Your task to perform on an android device: Set an alarm for 2pm Image 0: 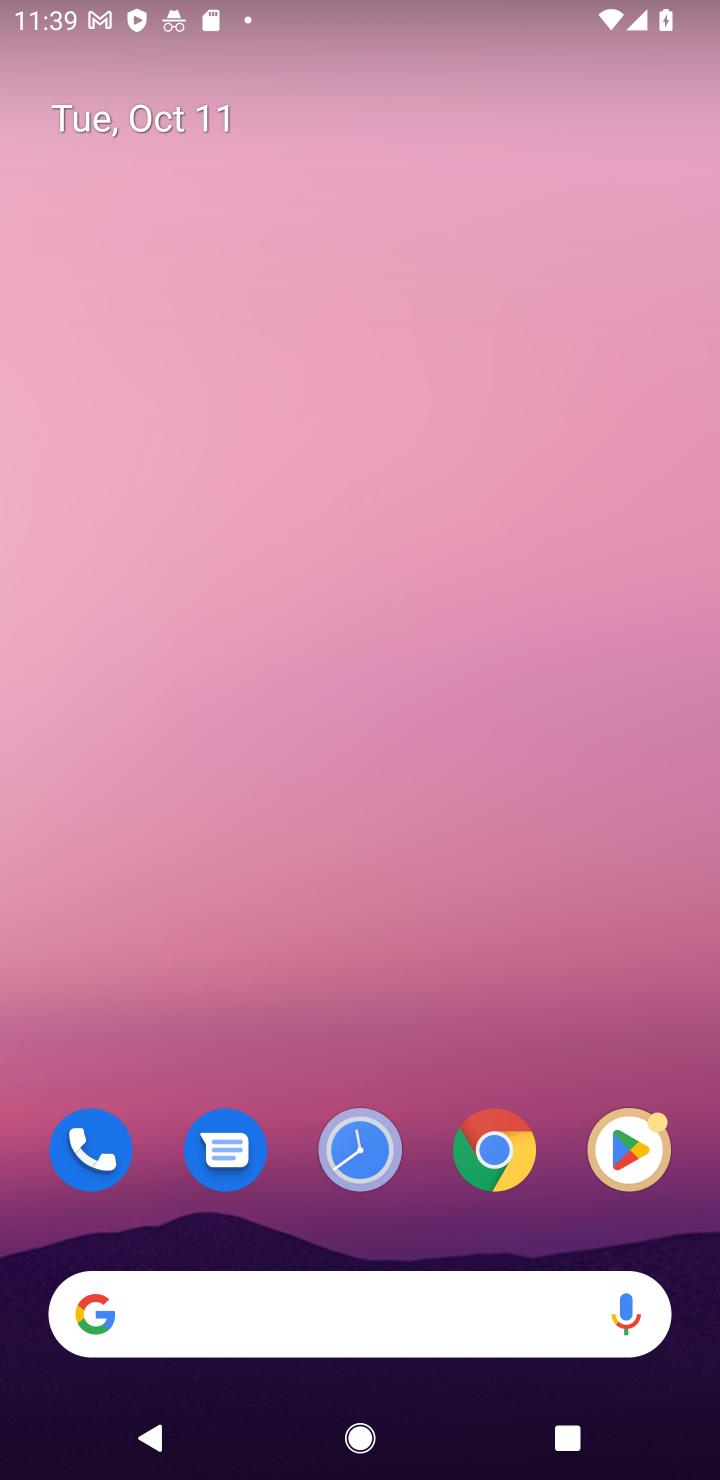
Step 0: press home button
Your task to perform on an android device: Set an alarm for 2pm Image 1: 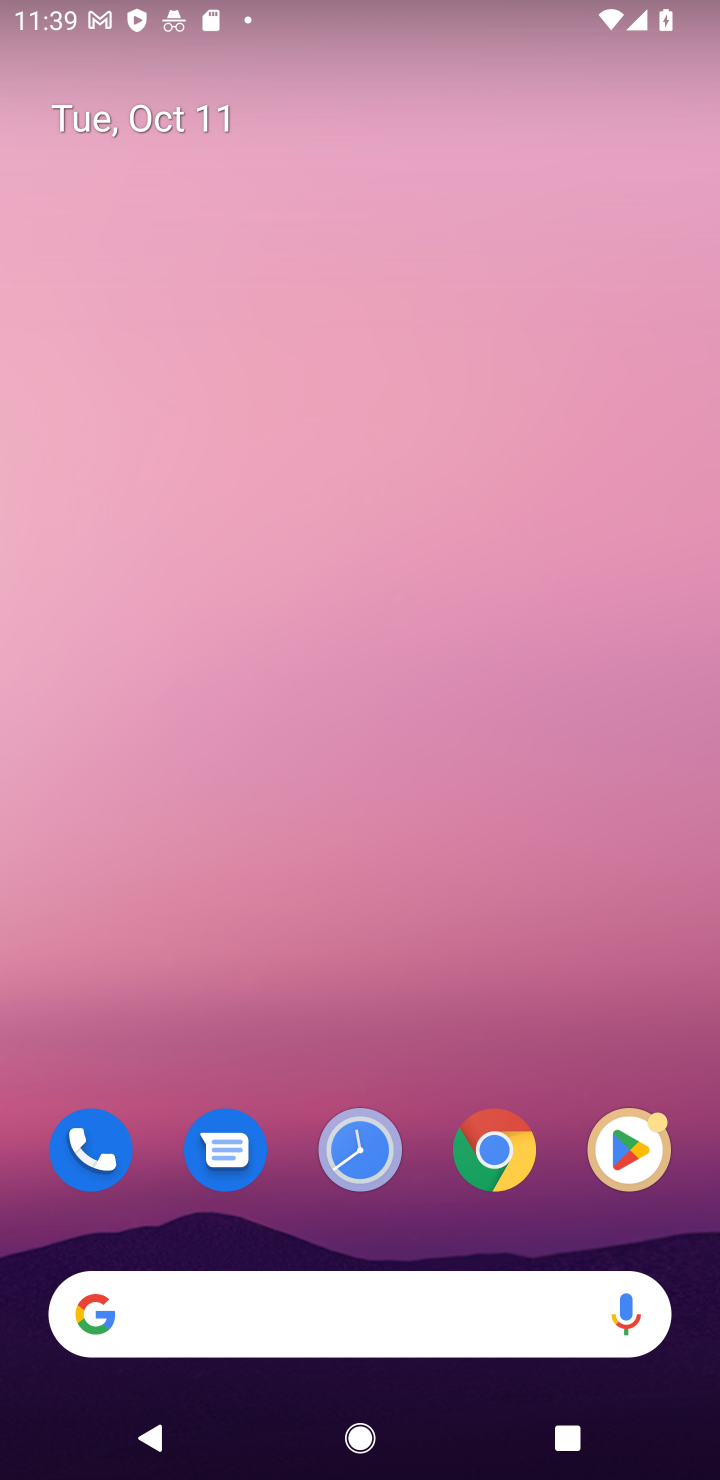
Step 1: click (362, 1138)
Your task to perform on an android device: Set an alarm for 2pm Image 2: 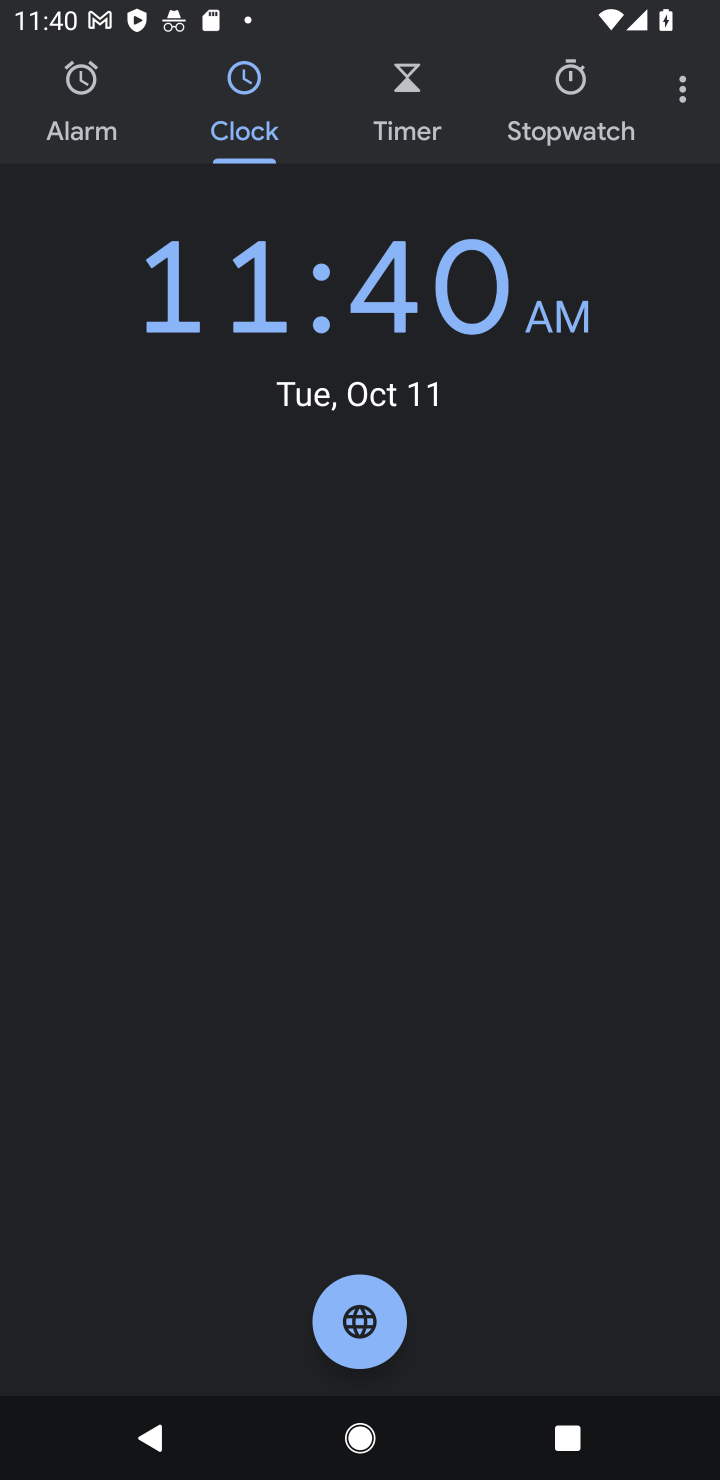
Step 2: click (86, 90)
Your task to perform on an android device: Set an alarm for 2pm Image 3: 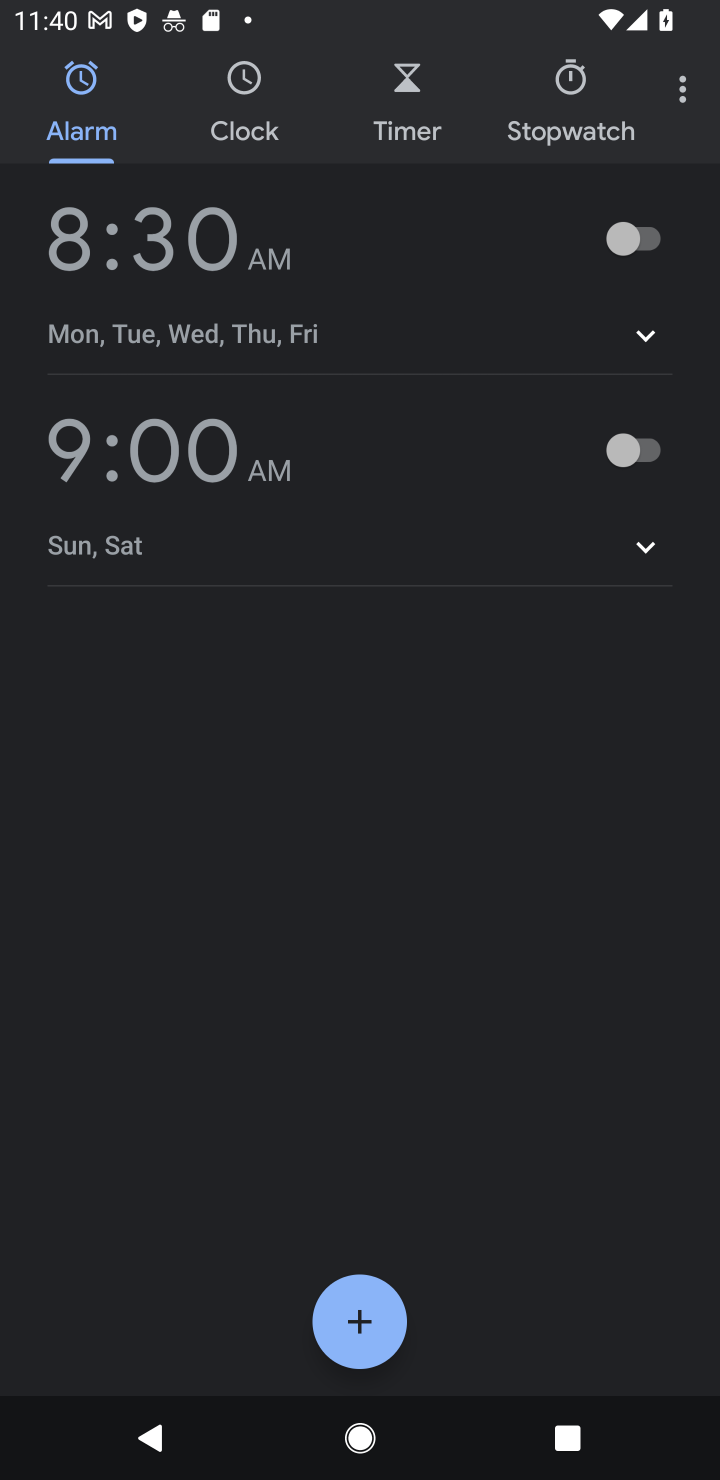
Step 3: click (349, 1323)
Your task to perform on an android device: Set an alarm for 2pm Image 4: 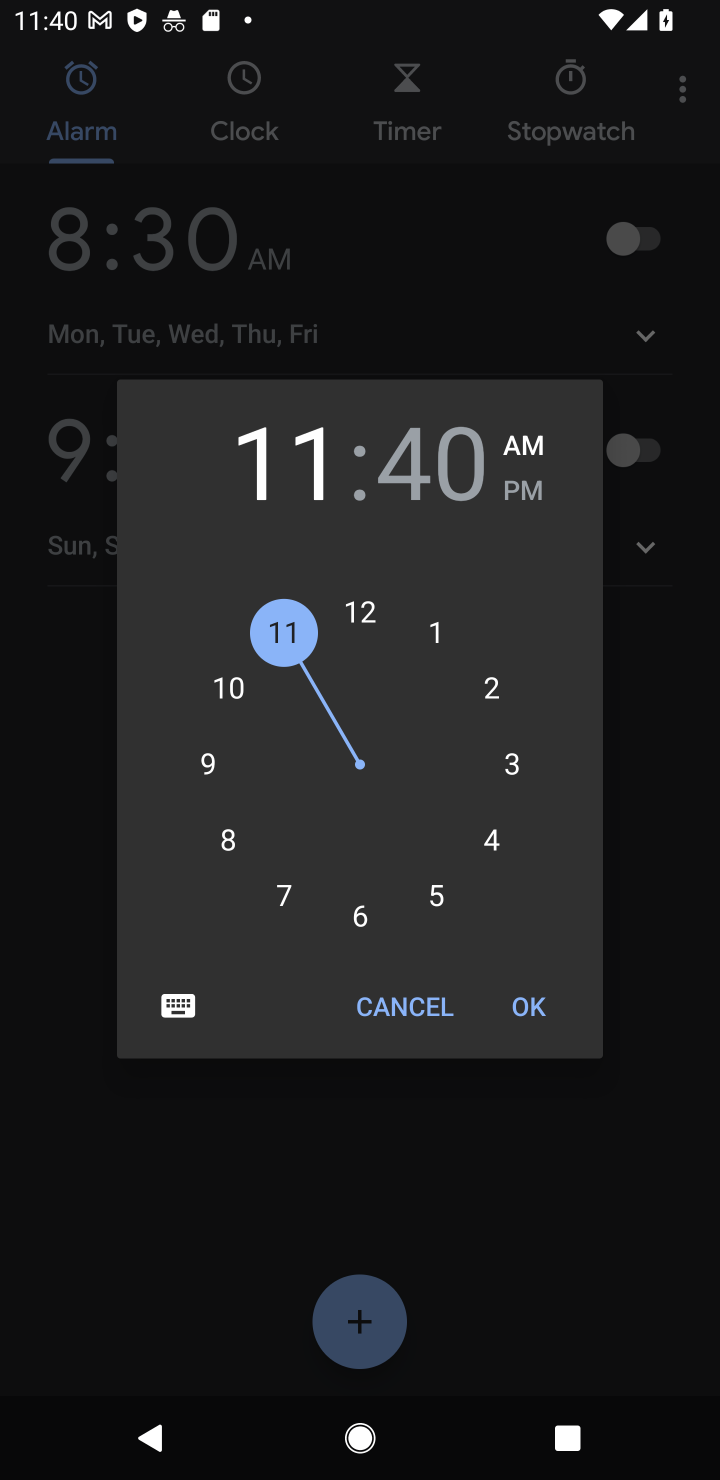
Step 4: click (485, 688)
Your task to perform on an android device: Set an alarm for 2pm Image 5: 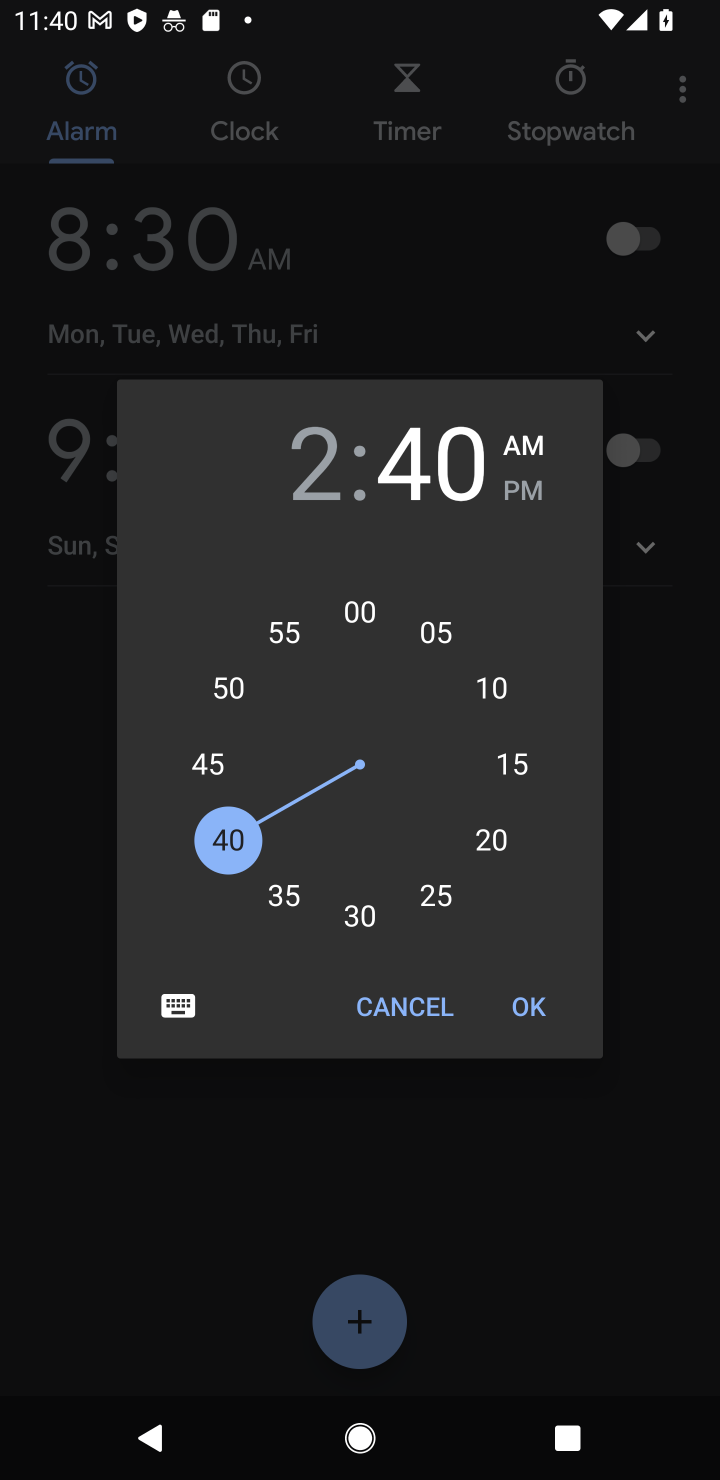
Step 5: click (348, 609)
Your task to perform on an android device: Set an alarm for 2pm Image 6: 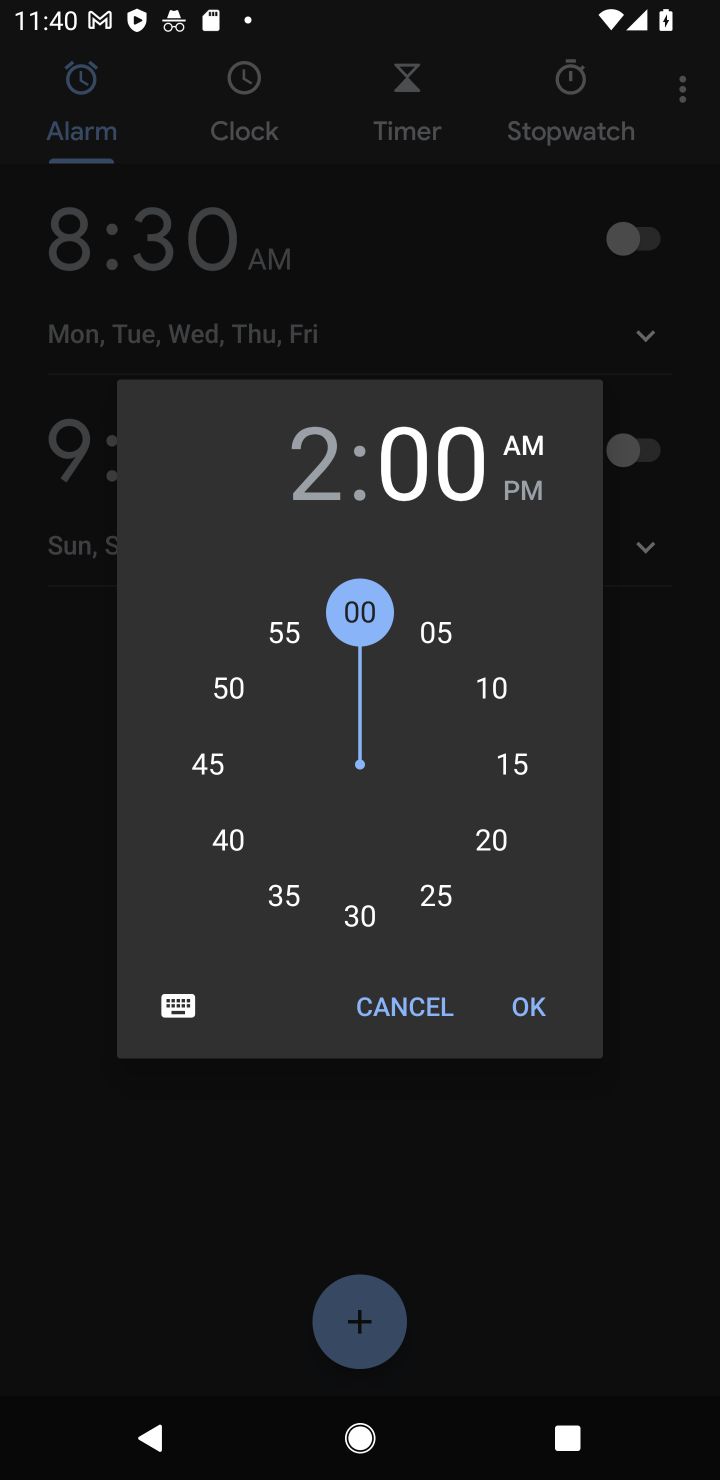
Step 6: click (518, 494)
Your task to perform on an android device: Set an alarm for 2pm Image 7: 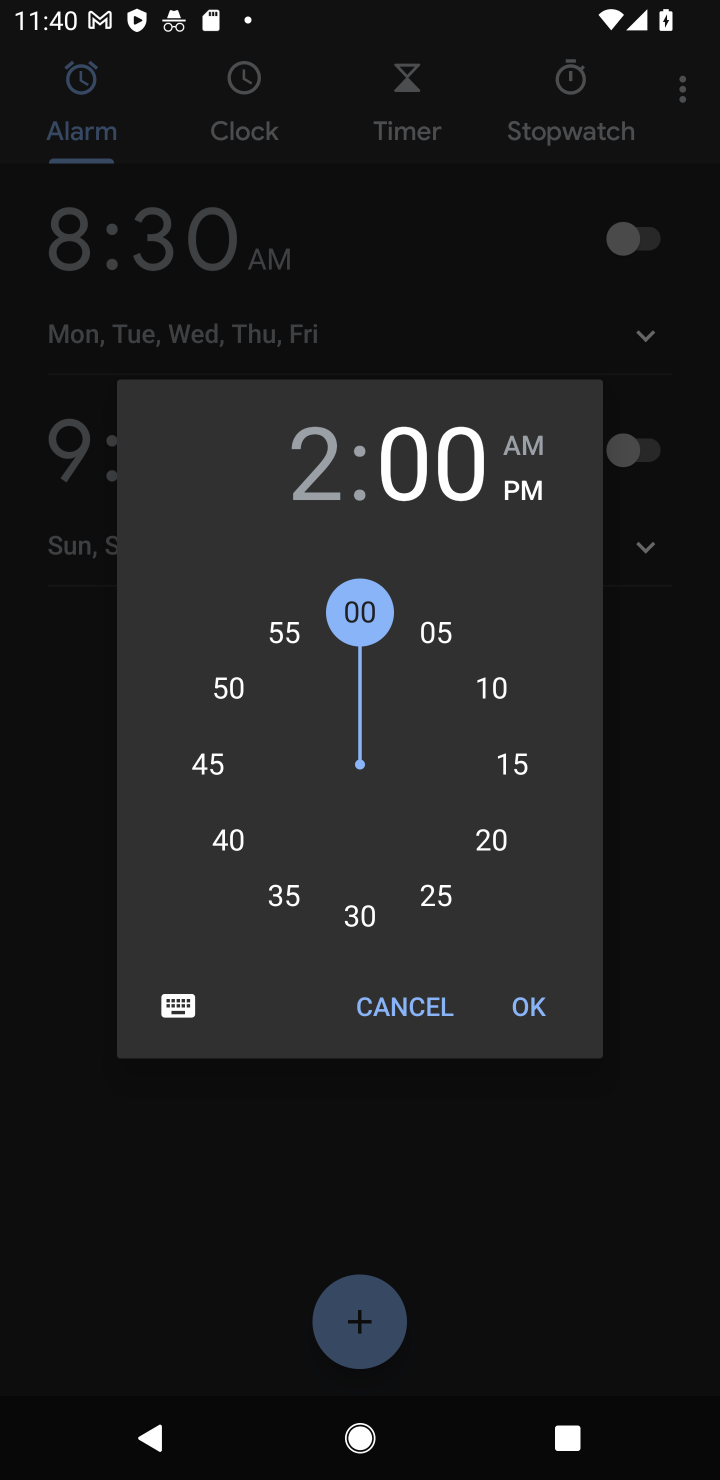
Step 7: click (522, 1009)
Your task to perform on an android device: Set an alarm for 2pm Image 8: 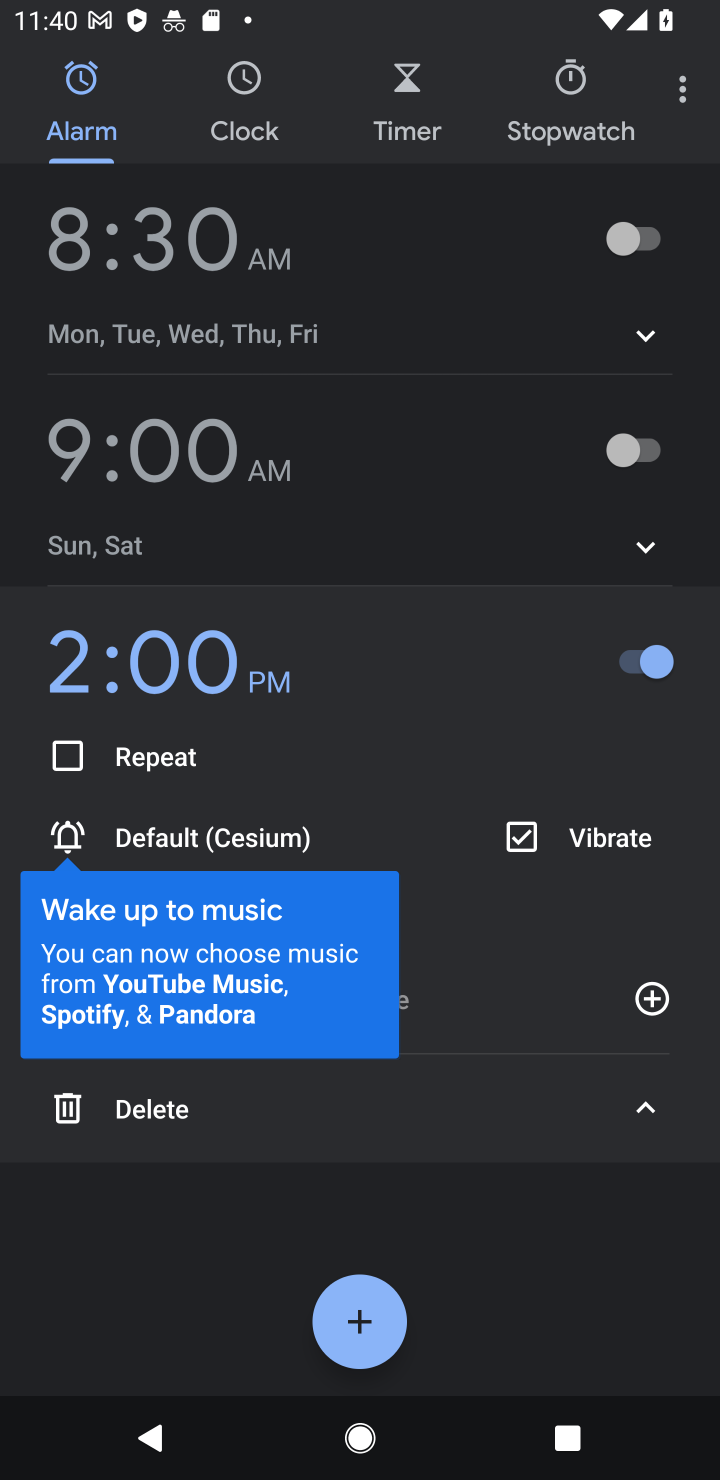
Step 8: task complete